Your task to perform on an android device: see tabs open on other devices in the chrome app Image 0: 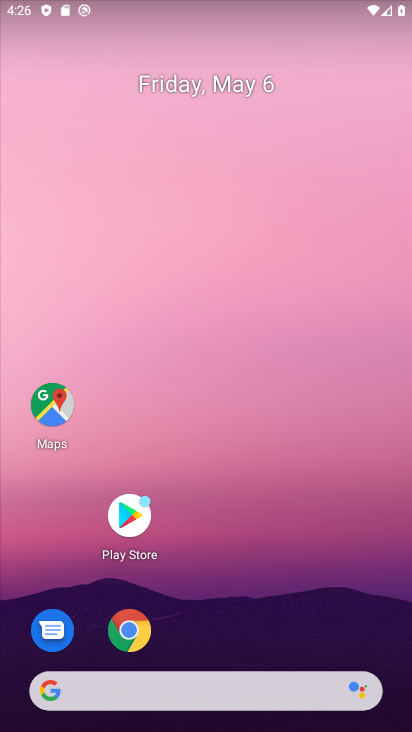
Step 0: drag from (260, 592) to (260, 128)
Your task to perform on an android device: see tabs open on other devices in the chrome app Image 1: 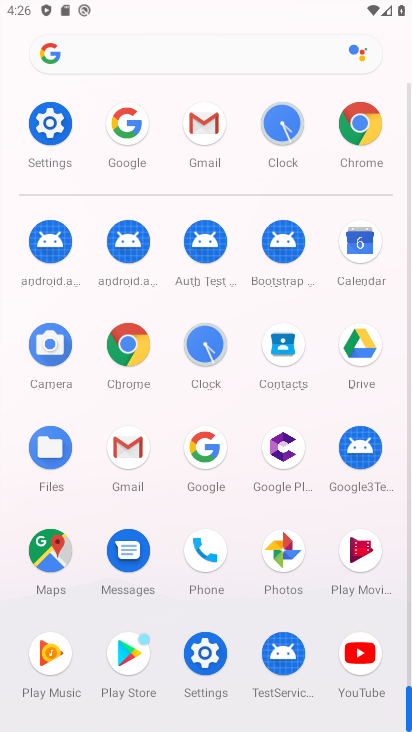
Step 1: click (126, 354)
Your task to perform on an android device: see tabs open on other devices in the chrome app Image 2: 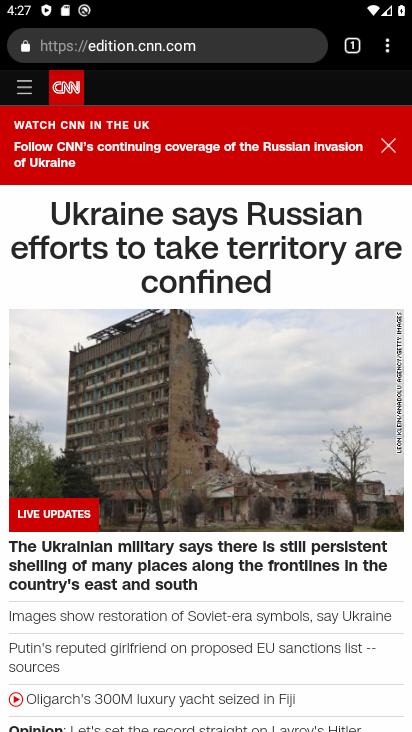
Step 2: task complete